Your task to perform on an android device: turn on airplane mode Image 0: 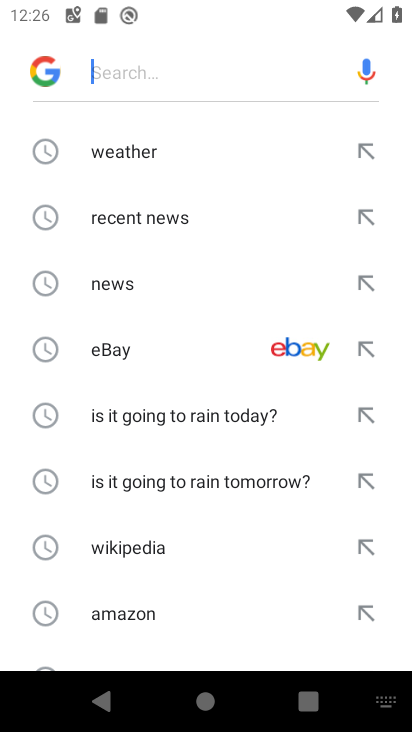
Step 0: press home button
Your task to perform on an android device: turn on airplane mode Image 1: 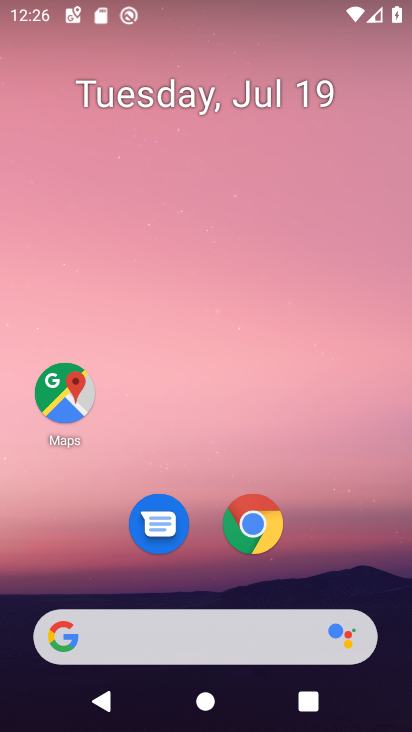
Step 1: drag from (203, 430) to (215, 26)
Your task to perform on an android device: turn on airplane mode Image 2: 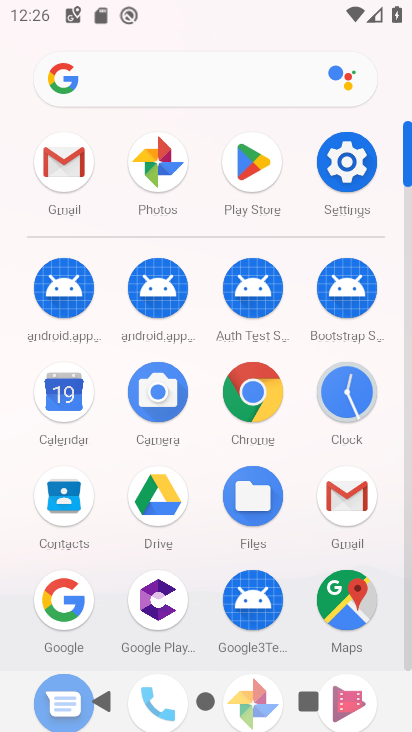
Step 2: click (338, 164)
Your task to perform on an android device: turn on airplane mode Image 3: 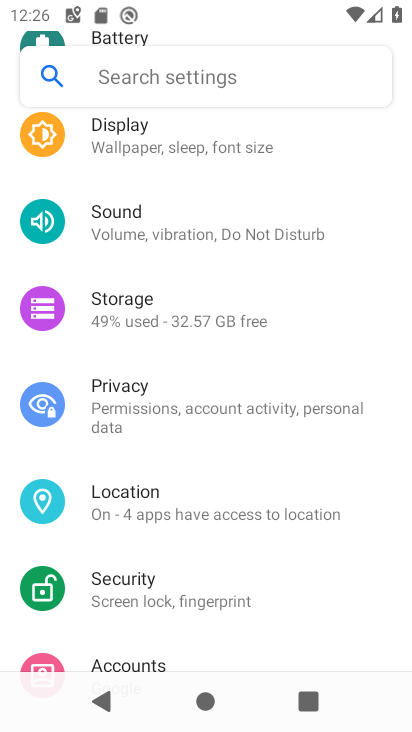
Step 3: drag from (243, 161) to (284, 599)
Your task to perform on an android device: turn on airplane mode Image 4: 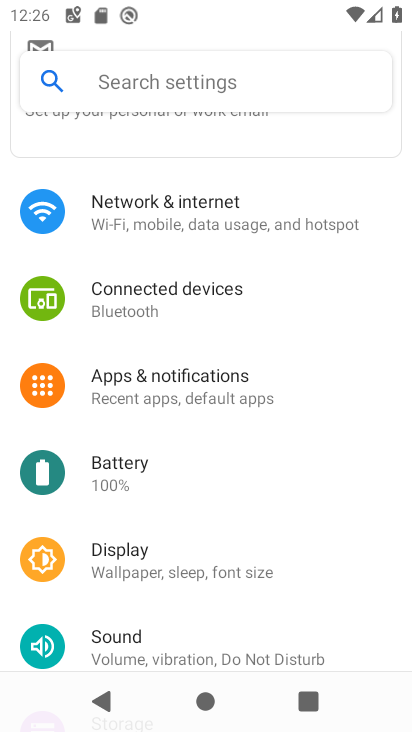
Step 4: click (236, 209)
Your task to perform on an android device: turn on airplane mode Image 5: 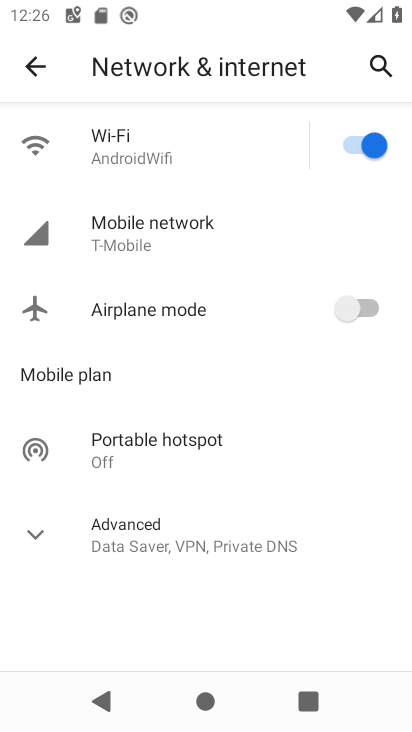
Step 5: click (363, 309)
Your task to perform on an android device: turn on airplane mode Image 6: 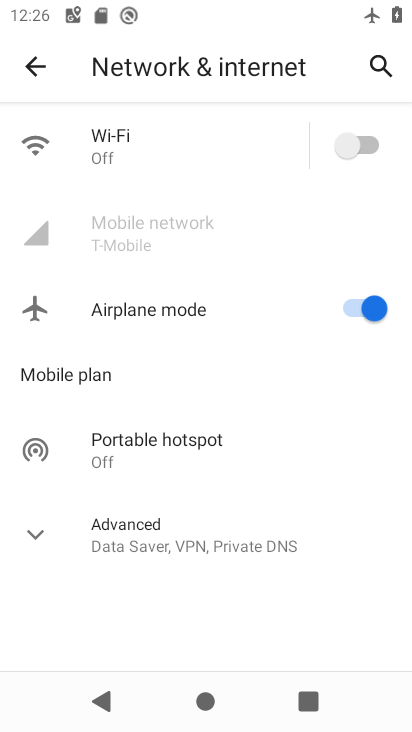
Step 6: task complete